Your task to perform on an android device: Go to network settings Image 0: 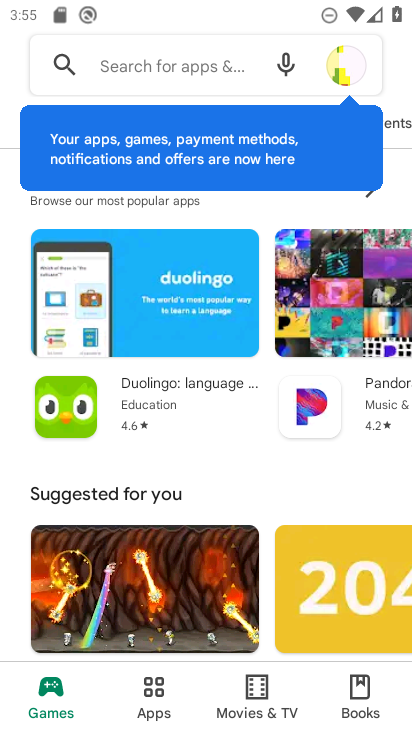
Step 0: press home button
Your task to perform on an android device: Go to network settings Image 1: 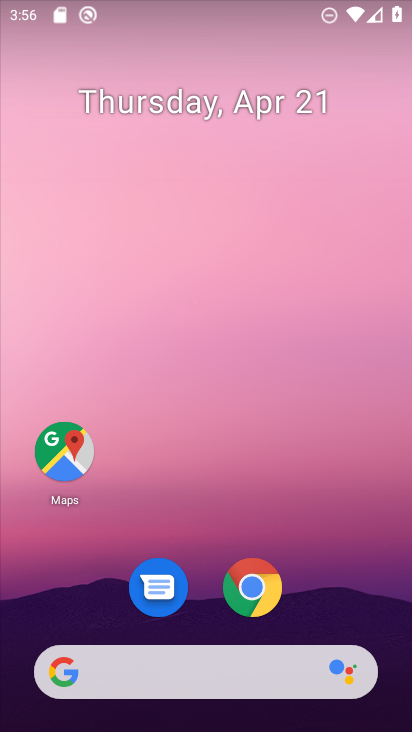
Step 1: drag from (345, 602) to (344, 7)
Your task to perform on an android device: Go to network settings Image 2: 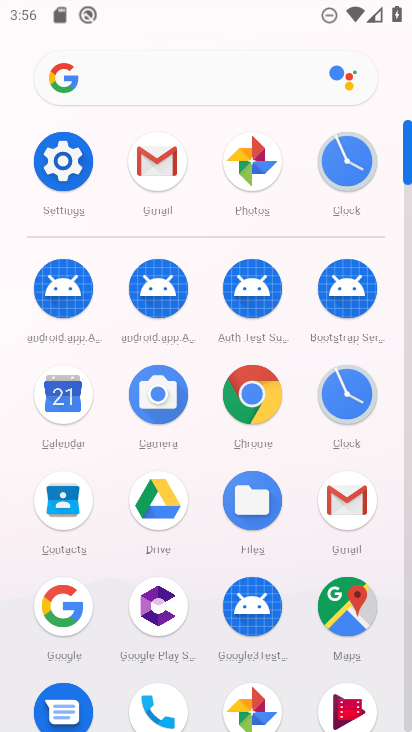
Step 2: click (53, 170)
Your task to perform on an android device: Go to network settings Image 3: 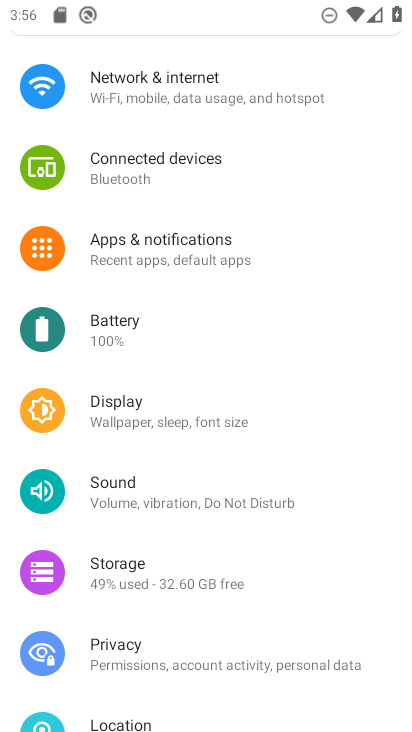
Step 3: click (160, 98)
Your task to perform on an android device: Go to network settings Image 4: 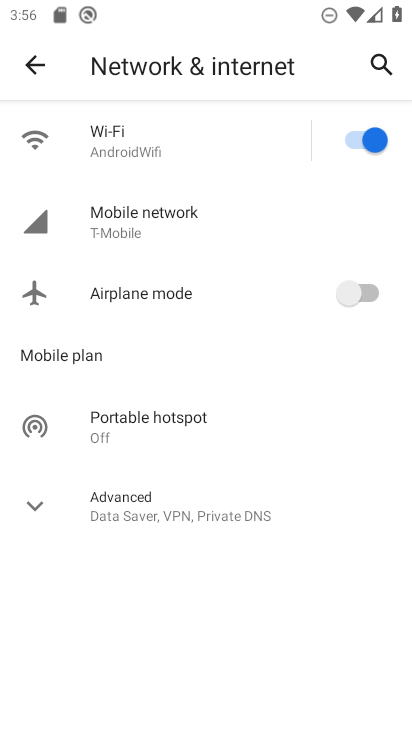
Step 4: click (122, 228)
Your task to perform on an android device: Go to network settings Image 5: 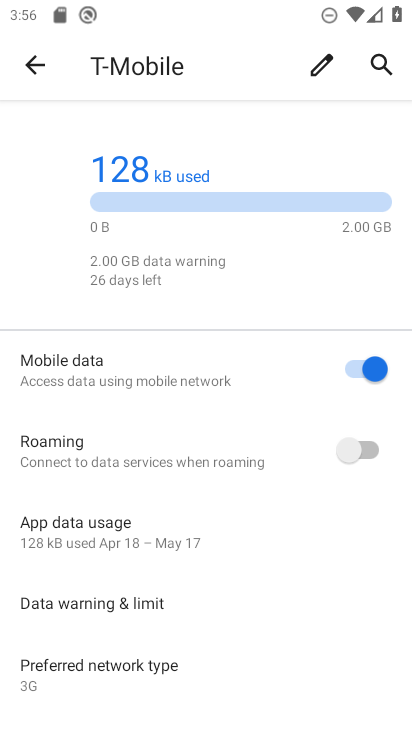
Step 5: drag from (166, 562) to (194, 183)
Your task to perform on an android device: Go to network settings Image 6: 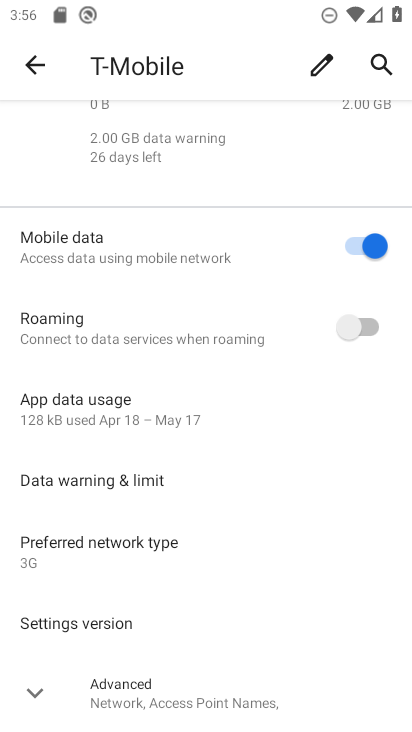
Step 6: click (33, 695)
Your task to perform on an android device: Go to network settings Image 7: 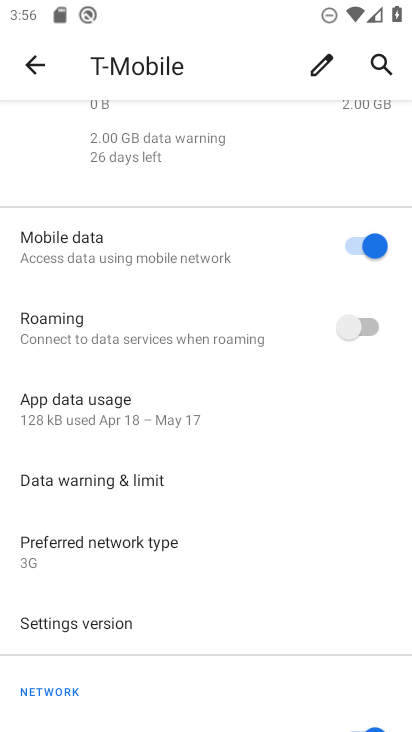
Step 7: task complete